Your task to perform on an android device: manage bookmarks in the chrome app Image 0: 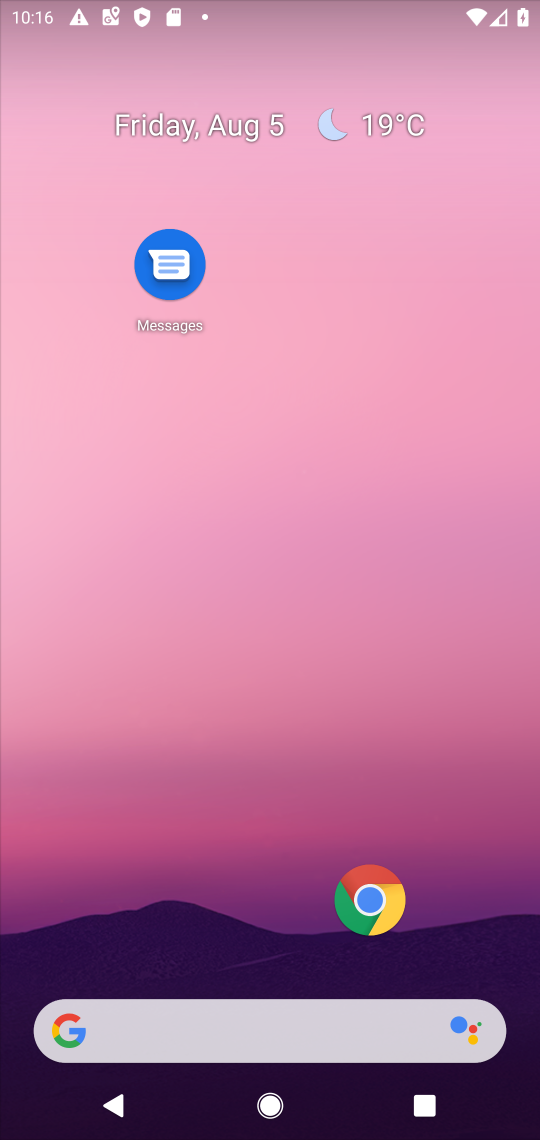
Step 0: press home button
Your task to perform on an android device: manage bookmarks in the chrome app Image 1: 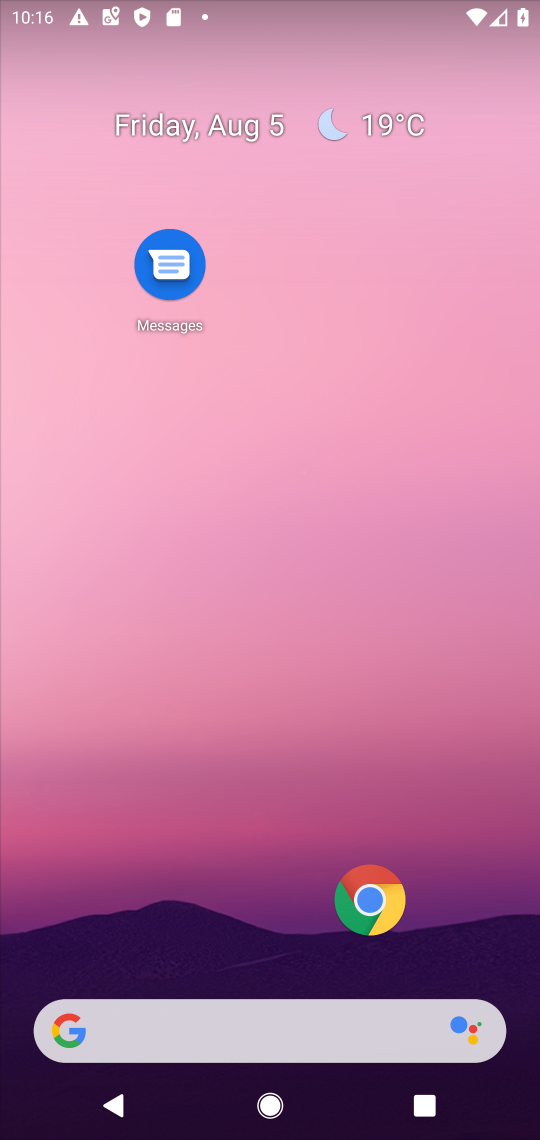
Step 1: drag from (240, 917) to (314, 37)
Your task to perform on an android device: manage bookmarks in the chrome app Image 2: 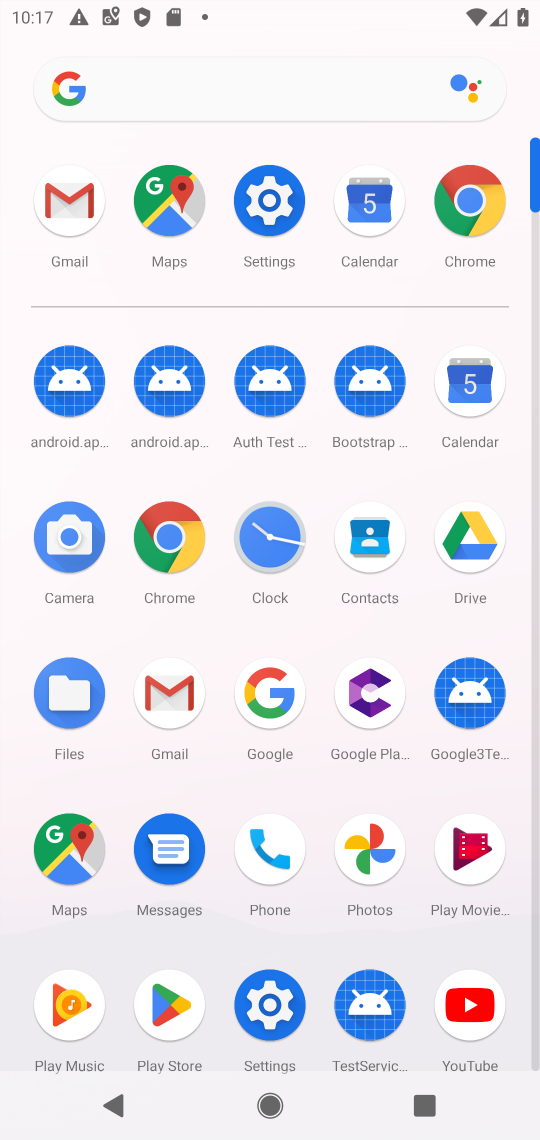
Step 2: click (163, 541)
Your task to perform on an android device: manage bookmarks in the chrome app Image 3: 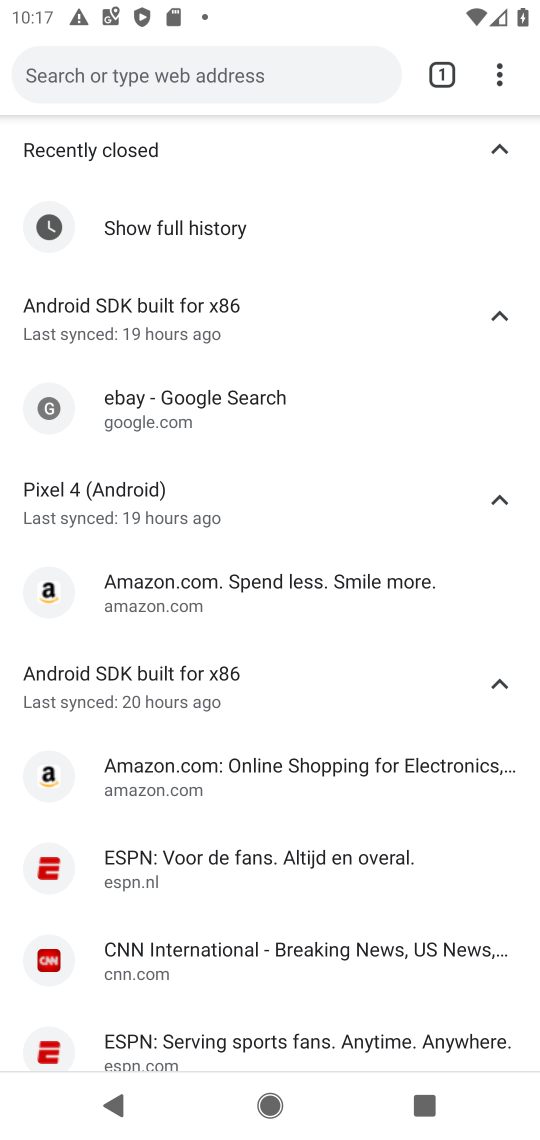
Step 3: task complete